Your task to perform on an android device: open wifi settings Image 0: 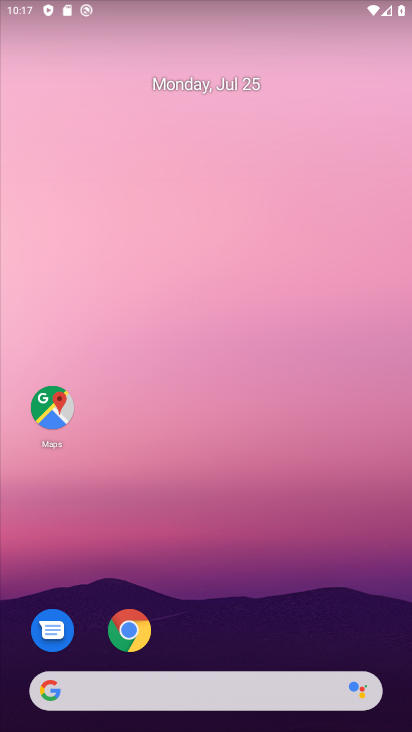
Step 0: drag from (232, 657) to (241, 186)
Your task to perform on an android device: open wifi settings Image 1: 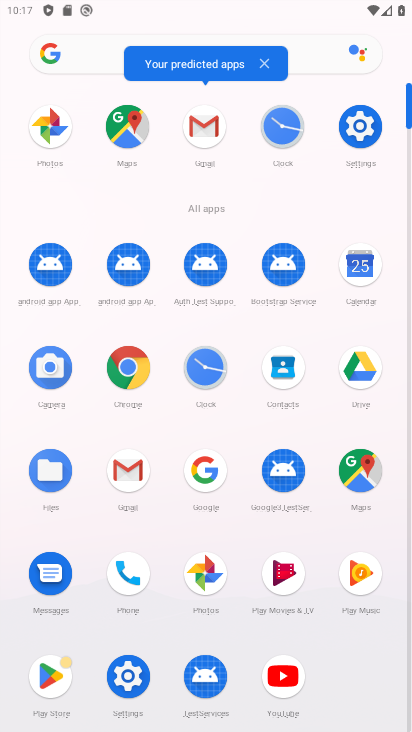
Step 1: click (361, 122)
Your task to perform on an android device: open wifi settings Image 2: 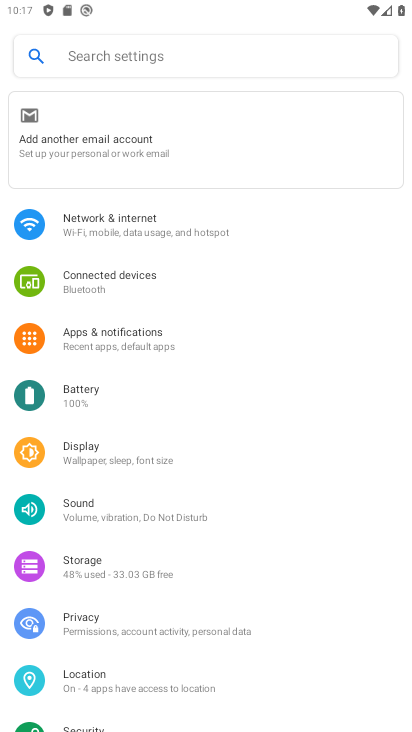
Step 2: click (129, 232)
Your task to perform on an android device: open wifi settings Image 3: 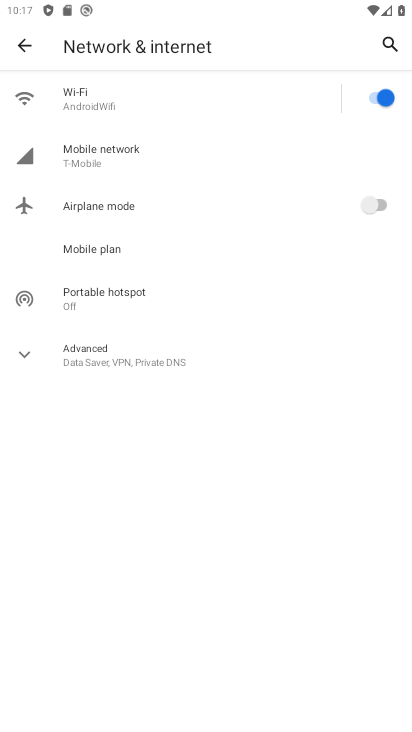
Step 3: click (106, 92)
Your task to perform on an android device: open wifi settings Image 4: 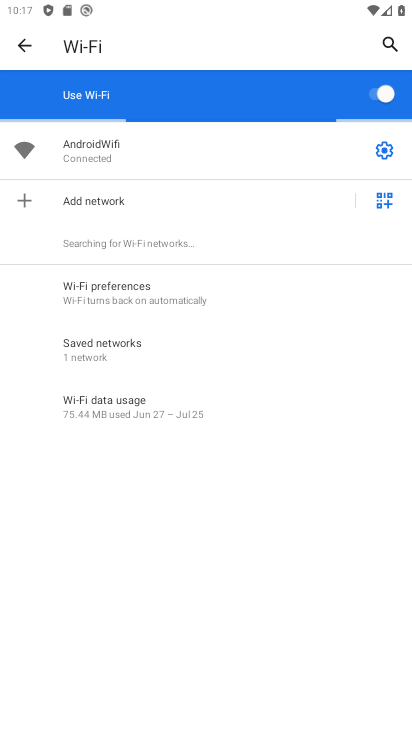
Step 4: task complete